Your task to perform on an android device: Add "corsair k70" to the cart on ebay Image 0: 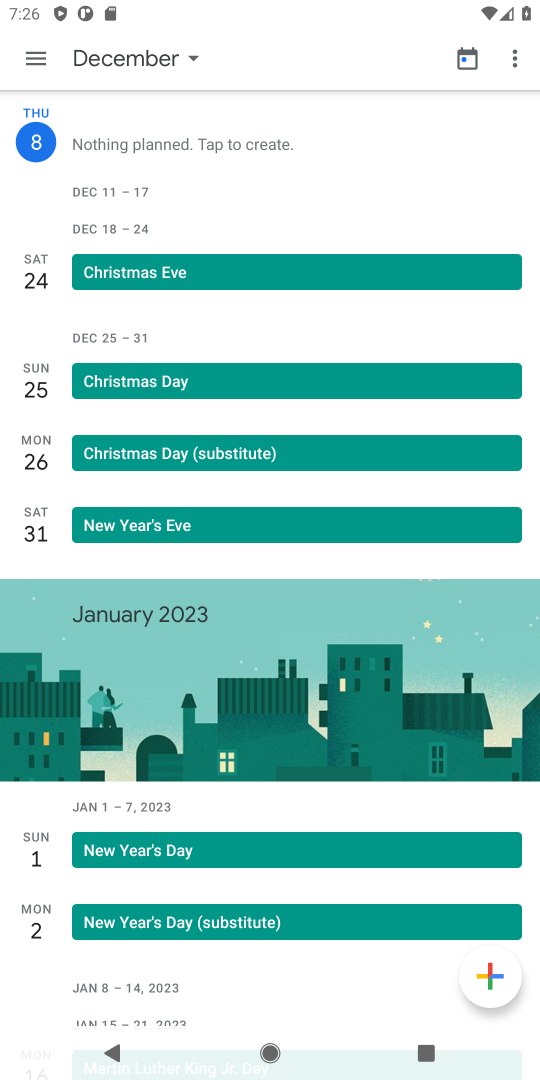
Step 0: press home button
Your task to perform on an android device: Add "corsair k70" to the cart on ebay Image 1: 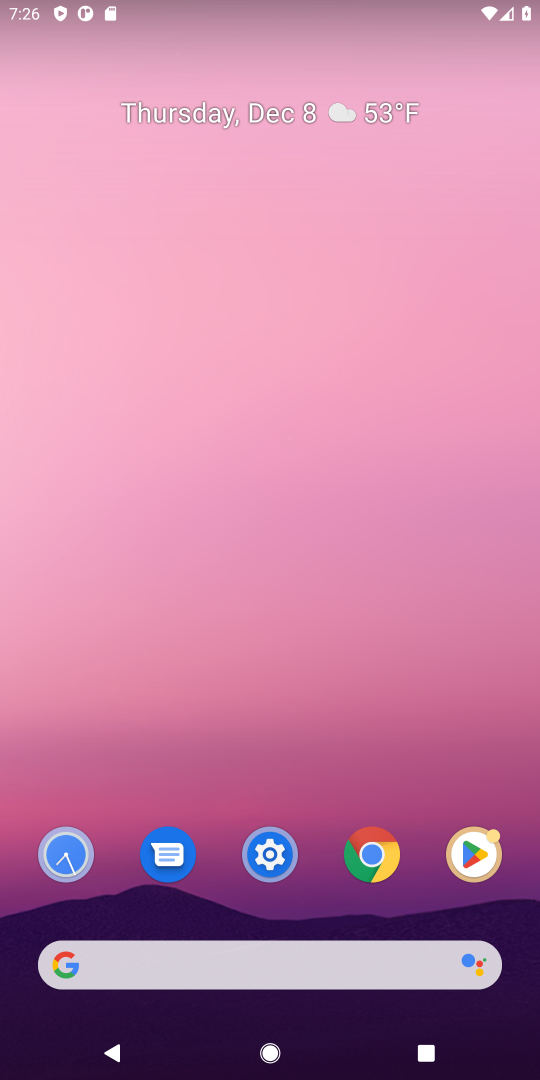
Step 1: click (98, 964)
Your task to perform on an android device: Add "corsair k70" to the cart on ebay Image 2: 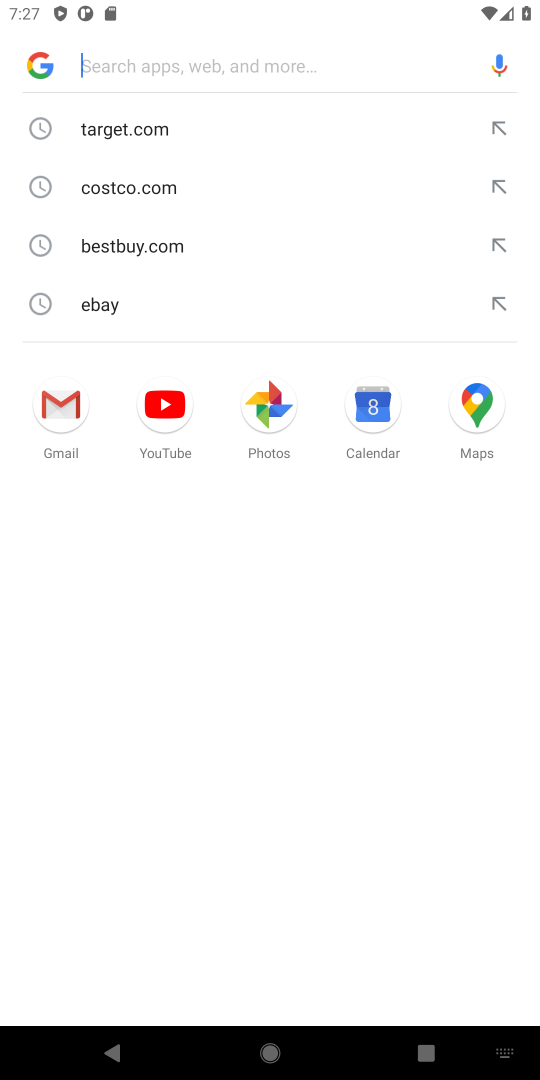
Step 2: type "ebay"
Your task to perform on an android device: Add "corsair k70" to the cart on ebay Image 3: 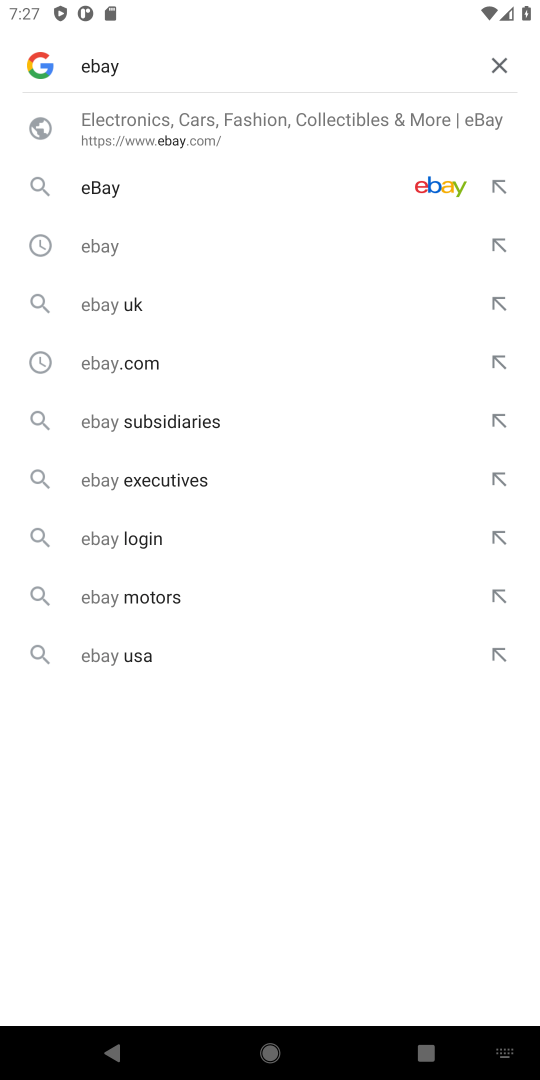
Step 3: press enter
Your task to perform on an android device: Add "corsair k70" to the cart on ebay Image 4: 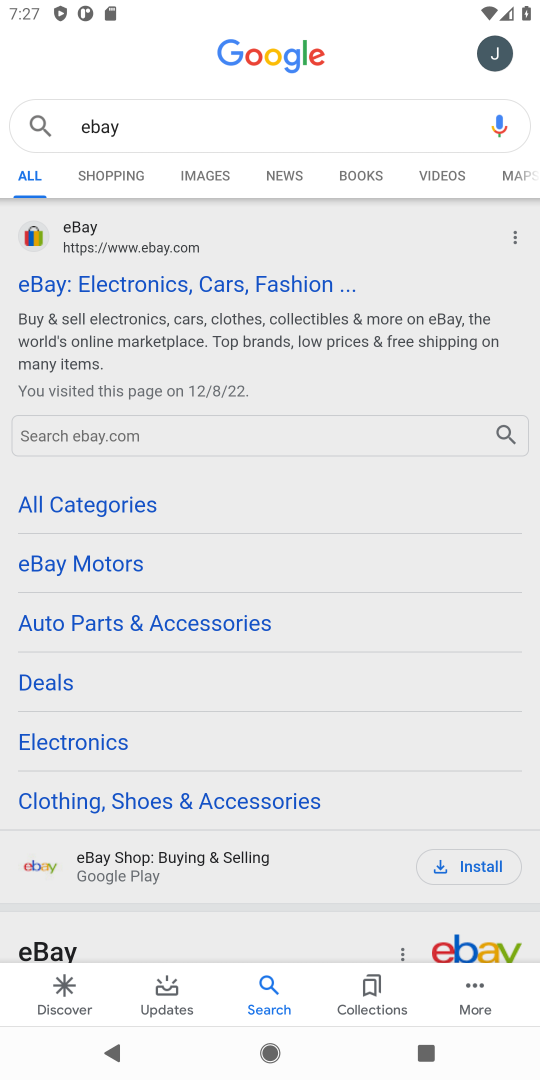
Step 4: click (208, 279)
Your task to perform on an android device: Add "corsair k70" to the cart on ebay Image 5: 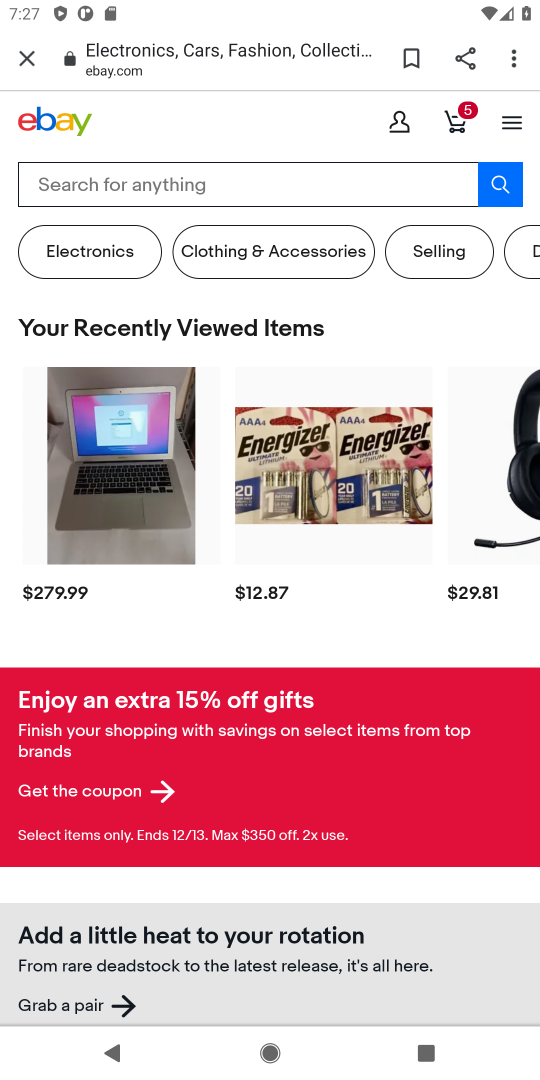
Step 5: click (65, 180)
Your task to perform on an android device: Add "corsair k70" to the cart on ebay Image 6: 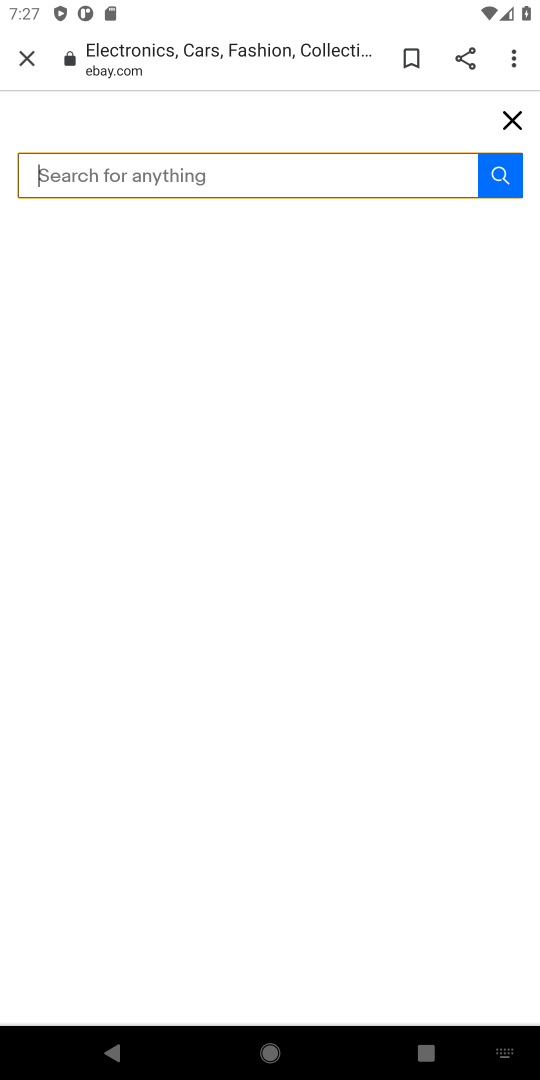
Step 6: type "corsair k70"
Your task to perform on an android device: Add "corsair k70" to the cart on ebay Image 7: 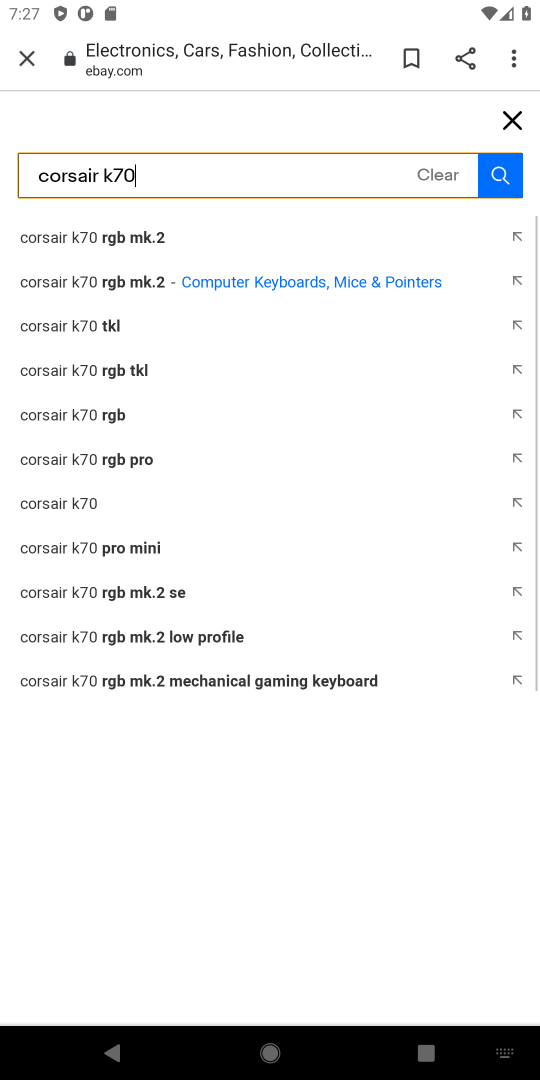
Step 7: press enter
Your task to perform on an android device: Add "corsair k70" to the cart on ebay Image 8: 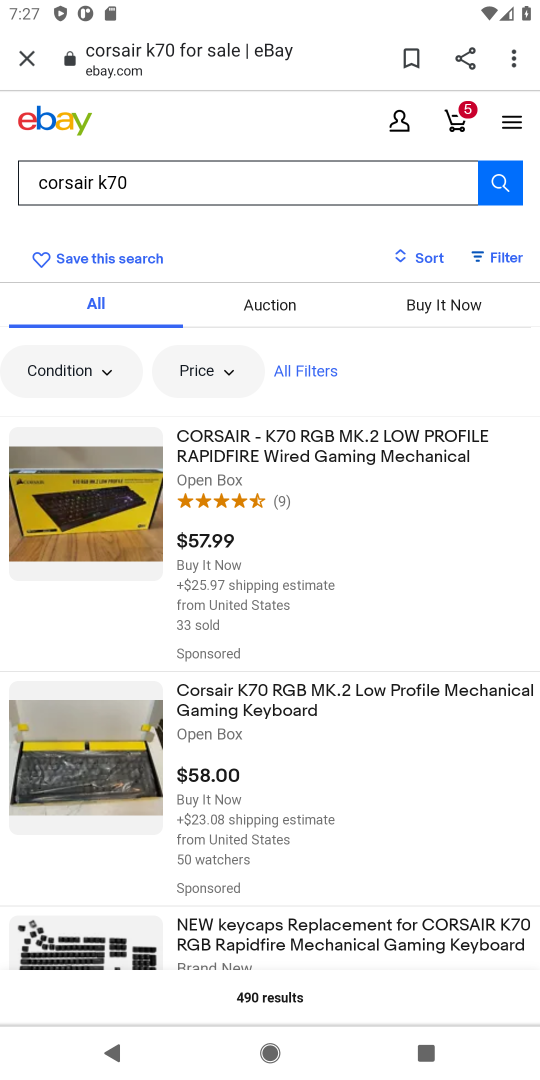
Step 8: click (235, 456)
Your task to perform on an android device: Add "corsair k70" to the cart on ebay Image 9: 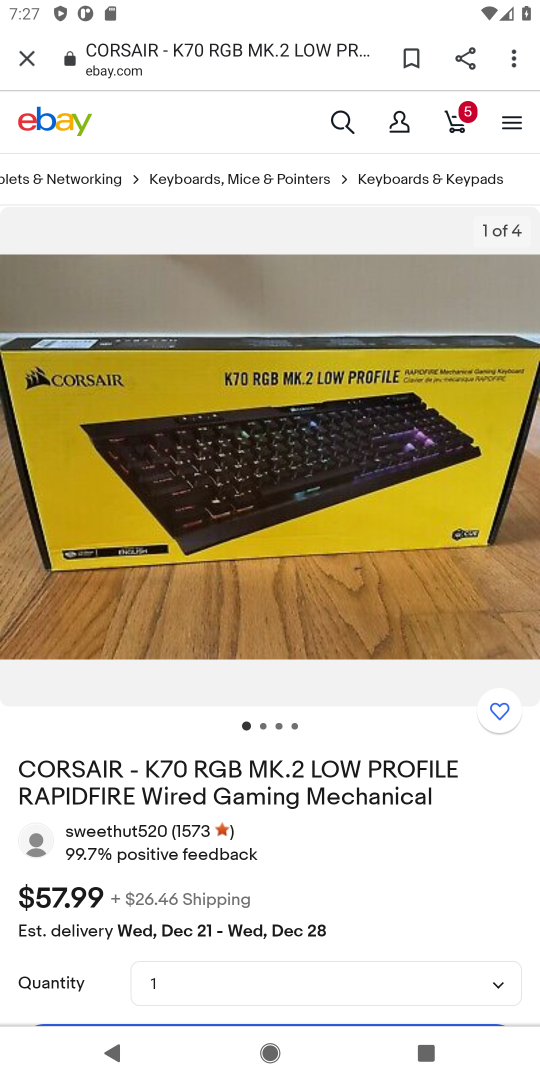
Step 9: drag from (384, 831) to (425, 598)
Your task to perform on an android device: Add "corsair k70" to the cart on ebay Image 10: 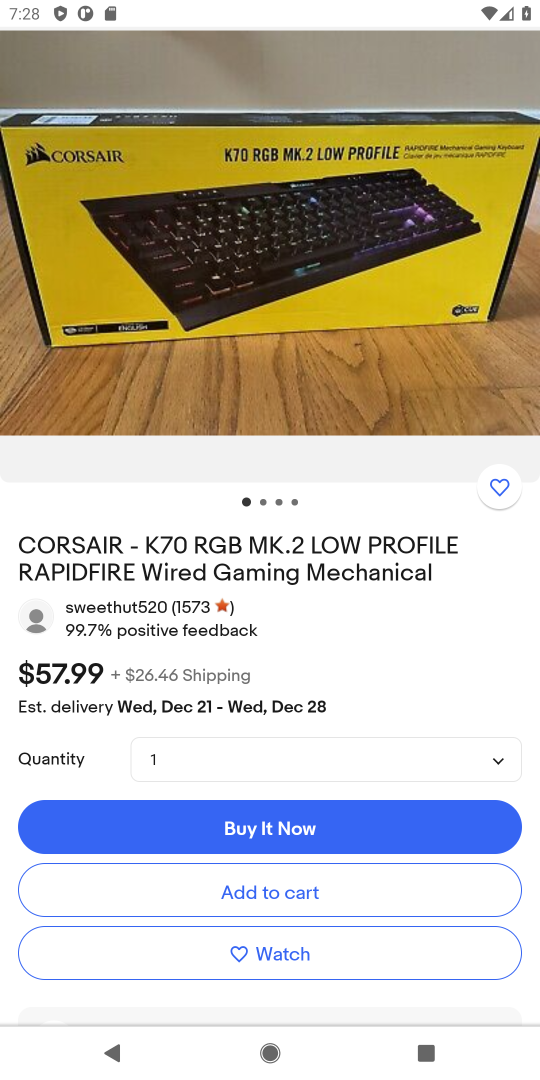
Step 10: click (248, 887)
Your task to perform on an android device: Add "corsair k70" to the cart on ebay Image 11: 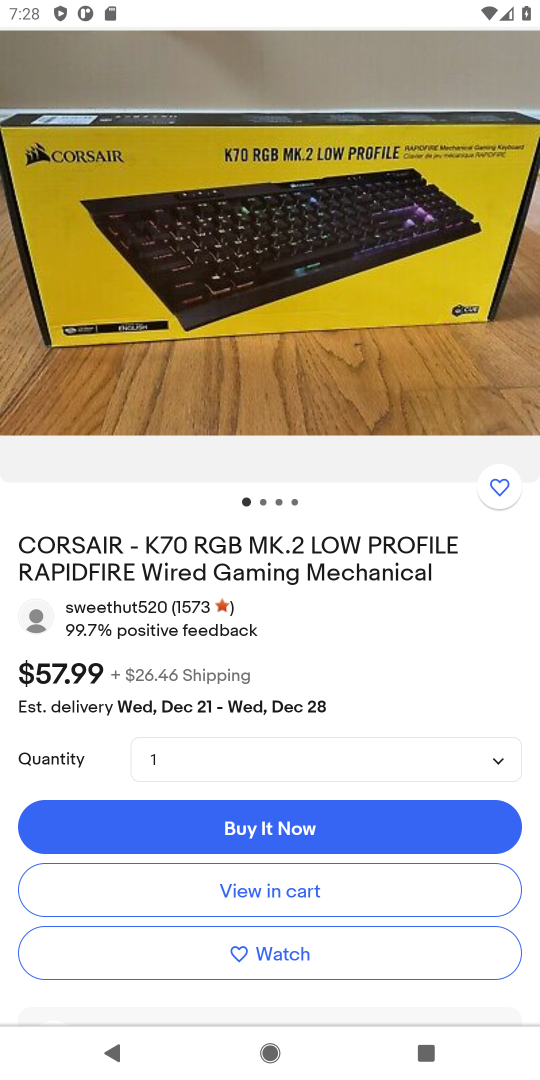
Step 11: task complete